Your task to perform on an android device: turn notification dots on Image 0: 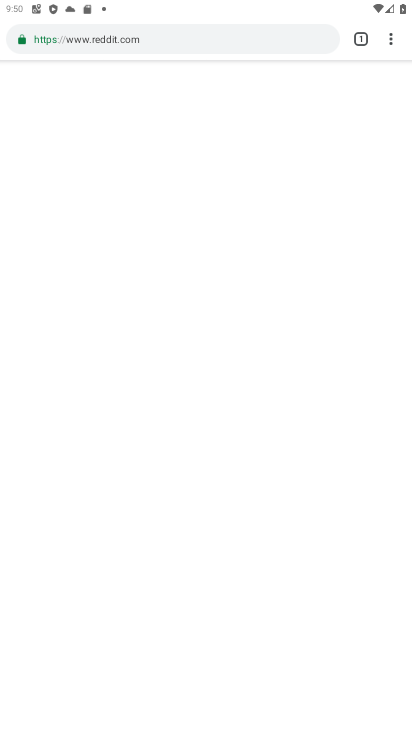
Step 0: press home button
Your task to perform on an android device: turn notification dots on Image 1: 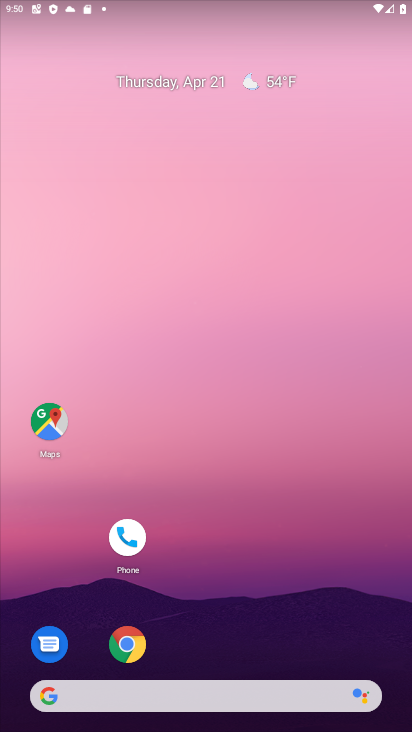
Step 1: drag from (289, 628) to (249, 173)
Your task to perform on an android device: turn notification dots on Image 2: 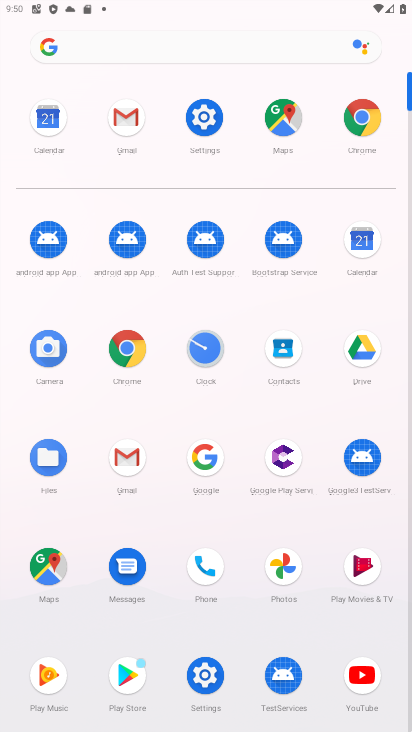
Step 2: click (209, 122)
Your task to perform on an android device: turn notification dots on Image 3: 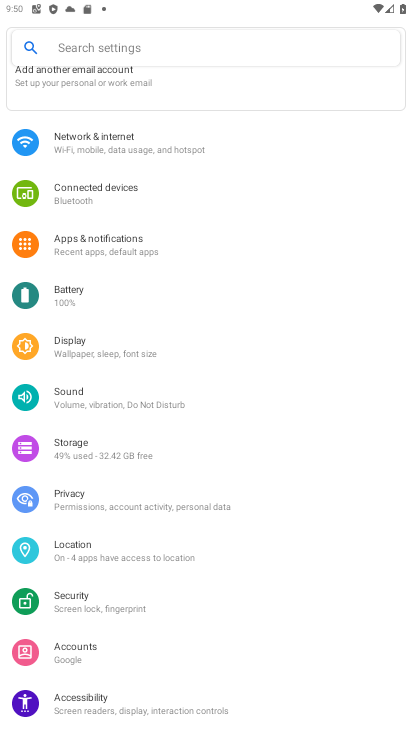
Step 3: click (103, 238)
Your task to perform on an android device: turn notification dots on Image 4: 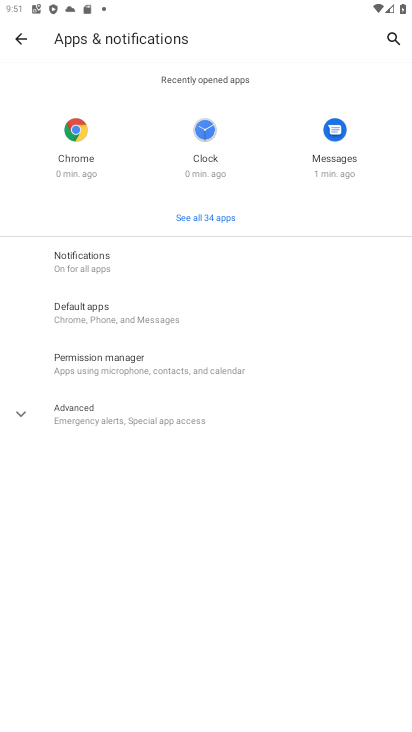
Step 4: click (24, 38)
Your task to perform on an android device: turn notification dots on Image 5: 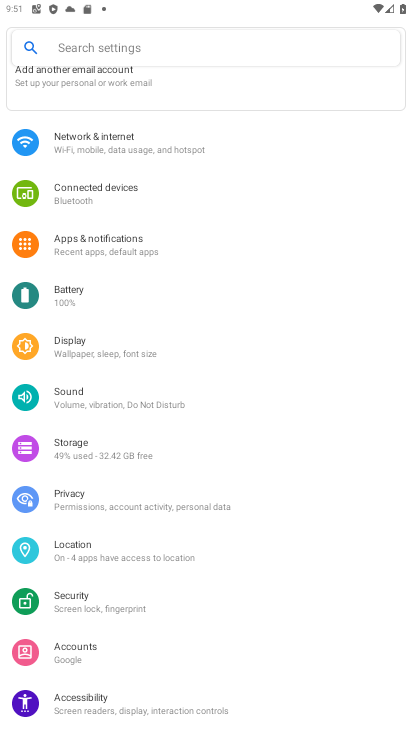
Step 5: click (106, 237)
Your task to perform on an android device: turn notification dots on Image 6: 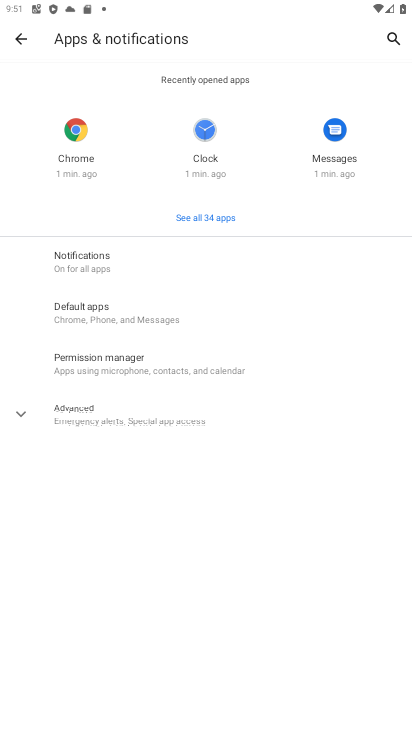
Step 6: click (115, 276)
Your task to perform on an android device: turn notification dots on Image 7: 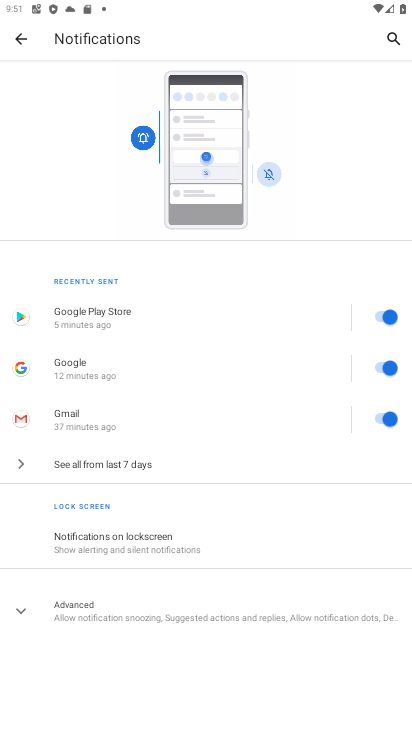
Step 7: click (80, 606)
Your task to perform on an android device: turn notification dots on Image 8: 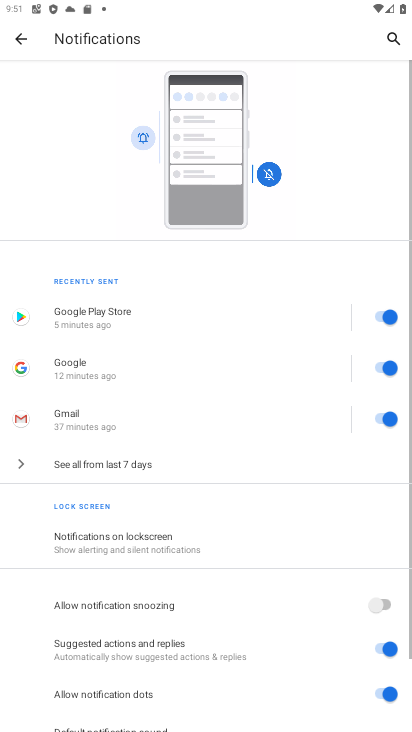
Step 8: task complete